Your task to perform on an android device: Open sound settings Image 0: 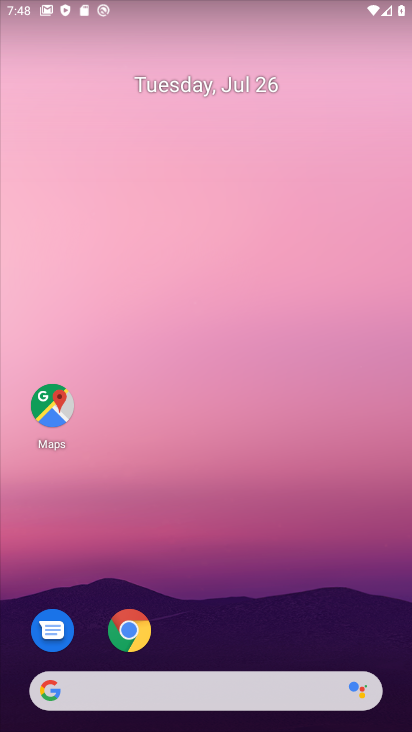
Step 0: drag from (394, 708) to (326, 10)
Your task to perform on an android device: Open sound settings Image 1: 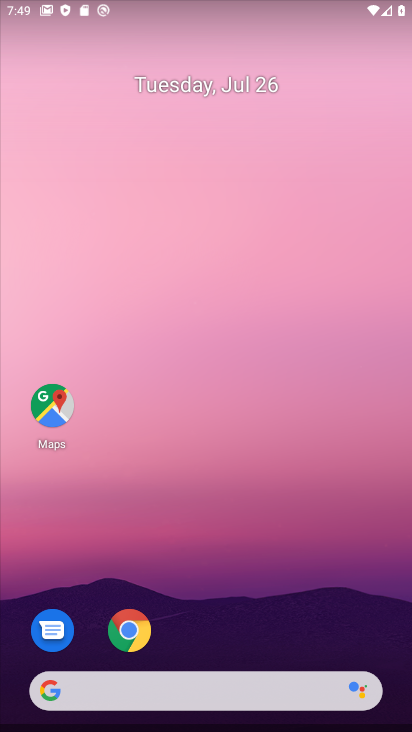
Step 1: drag from (389, 685) to (355, 86)
Your task to perform on an android device: Open sound settings Image 2: 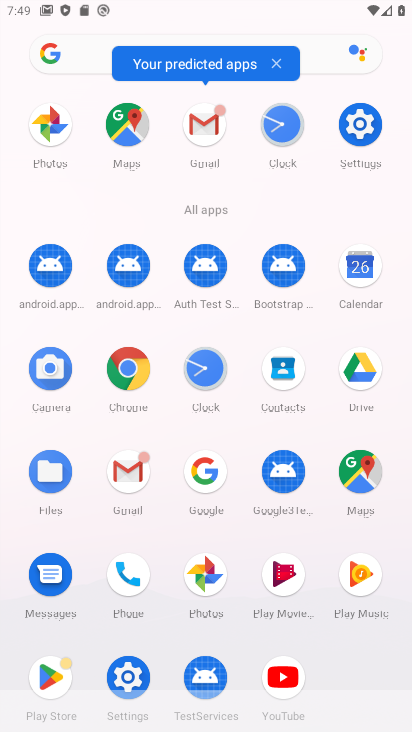
Step 2: click (357, 112)
Your task to perform on an android device: Open sound settings Image 3: 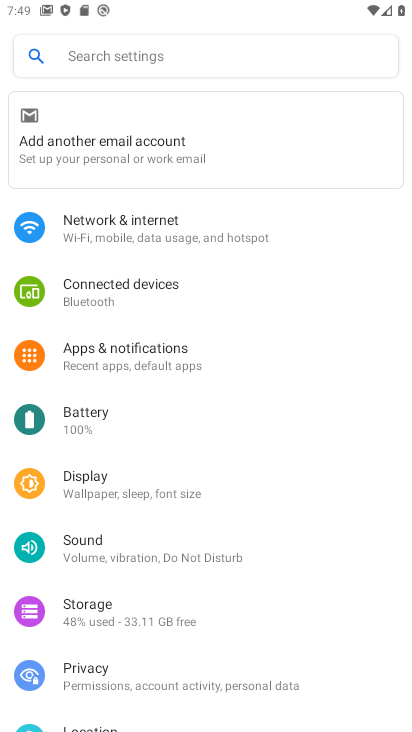
Step 3: click (75, 548)
Your task to perform on an android device: Open sound settings Image 4: 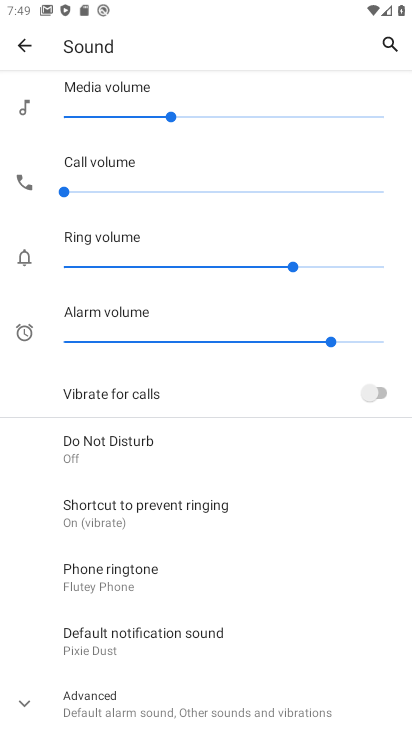
Step 4: task complete